Your task to perform on an android device: Turn off the flashlight Image 0: 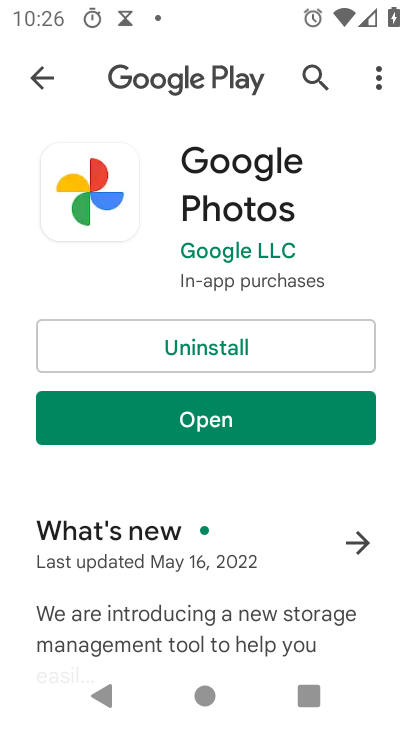
Step 0: press home button
Your task to perform on an android device: Turn off the flashlight Image 1: 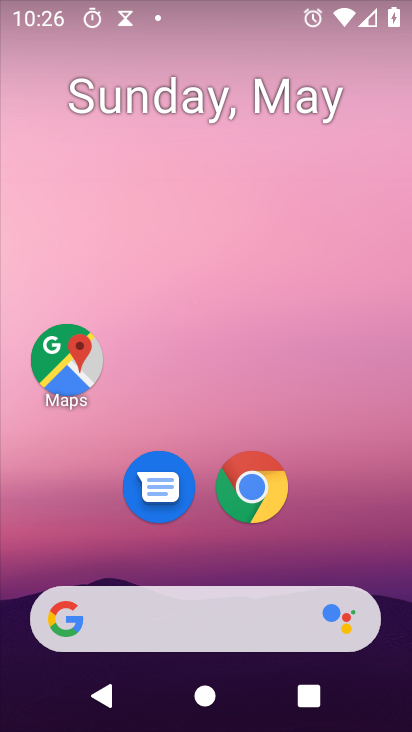
Step 1: drag from (336, 517) to (364, 4)
Your task to perform on an android device: Turn off the flashlight Image 2: 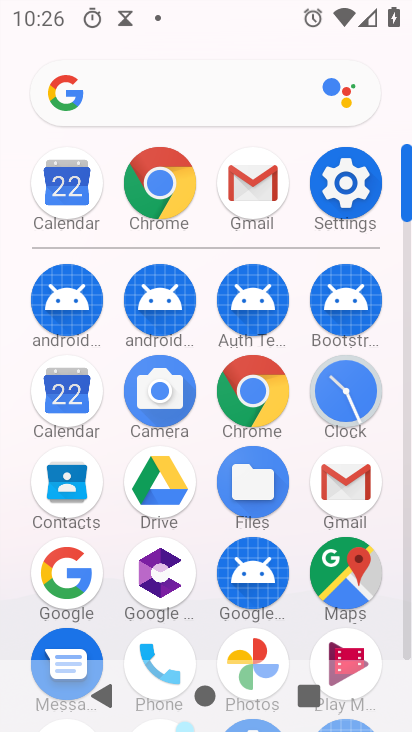
Step 2: click (336, 209)
Your task to perform on an android device: Turn off the flashlight Image 3: 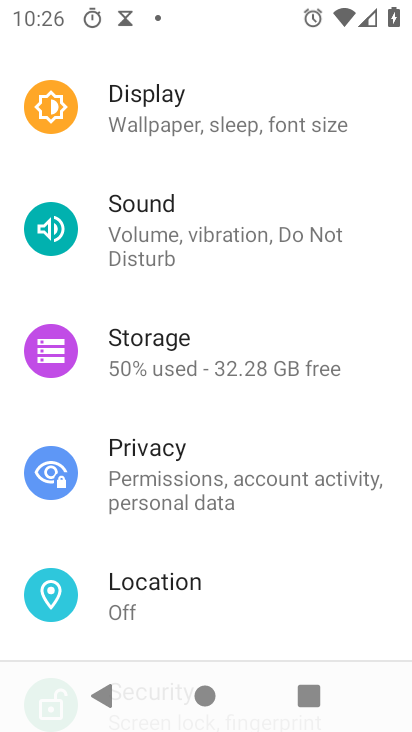
Step 3: task complete